Your task to perform on an android device: change the clock display to analog Image 0: 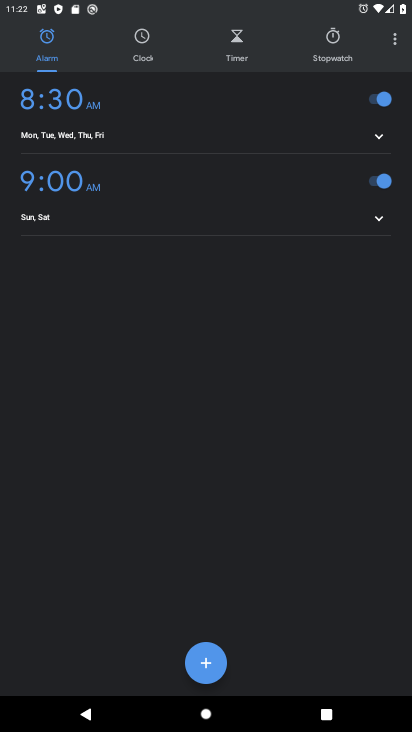
Step 0: press home button
Your task to perform on an android device: change the clock display to analog Image 1: 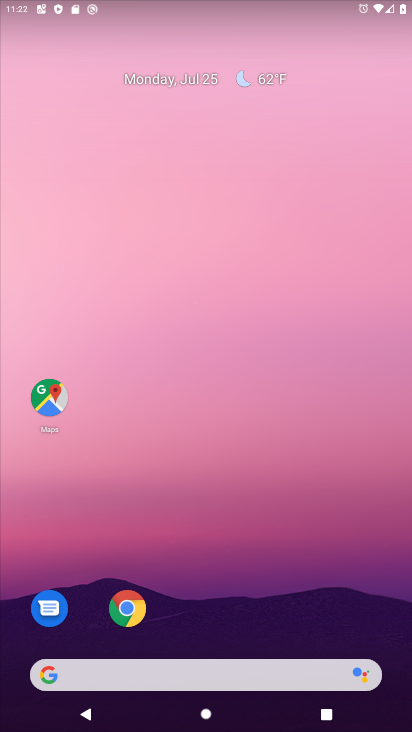
Step 1: drag from (226, 589) to (210, 226)
Your task to perform on an android device: change the clock display to analog Image 2: 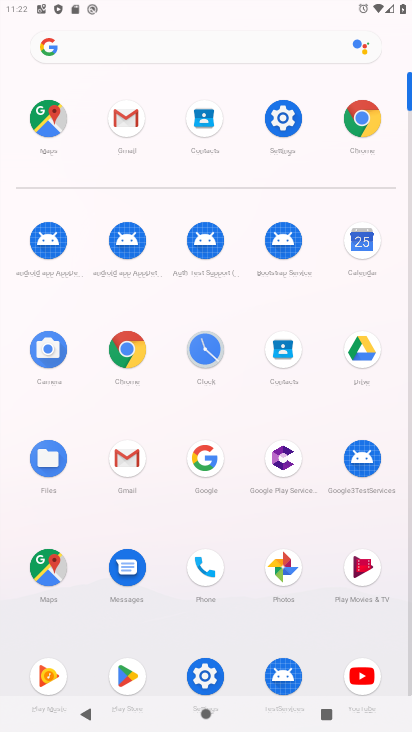
Step 2: click (208, 360)
Your task to perform on an android device: change the clock display to analog Image 3: 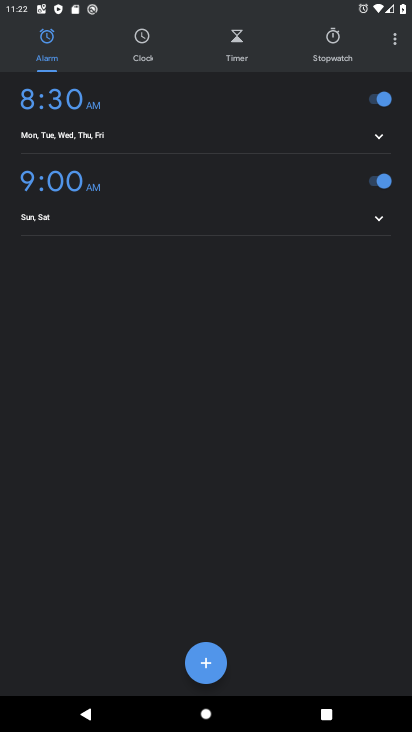
Step 3: click (393, 35)
Your task to perform on an android device: change the clock display to analog Image 4: 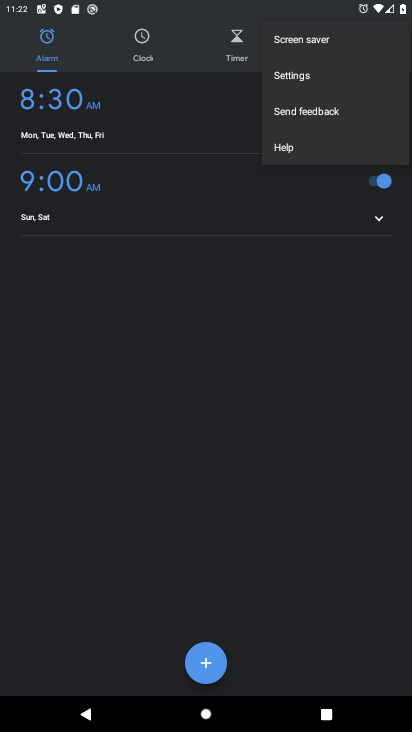
Step 4: click (289, 73)
Your task to perform on an android device: change the clock display to analog Image 5: 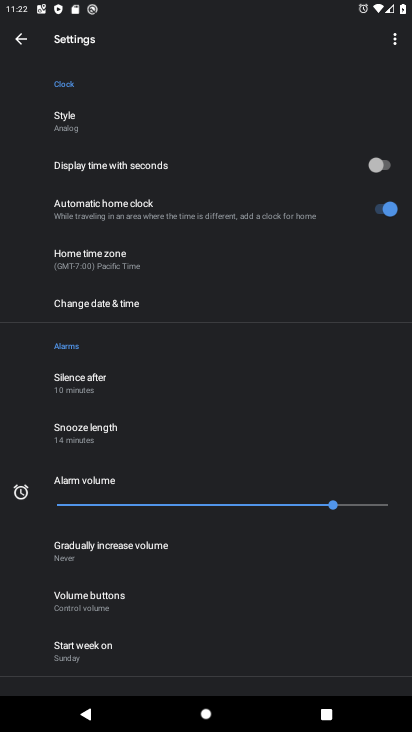
Step 5: task complete